Your task to perform on an android device: What's the weather? Image 0: 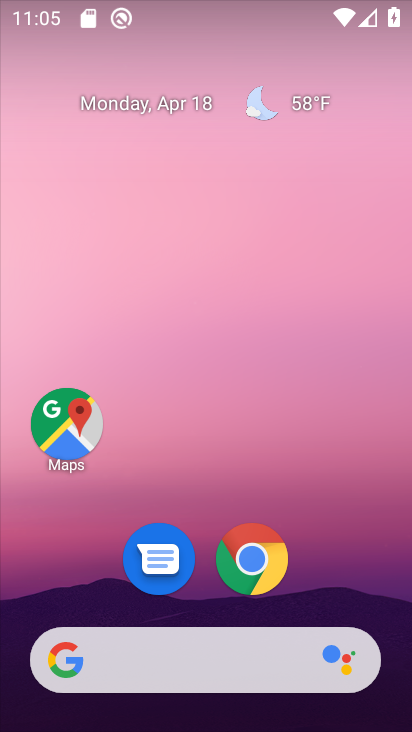
Step 0: click (259, 566)
Your task to perform on an android device: What's the weather? Image 1: 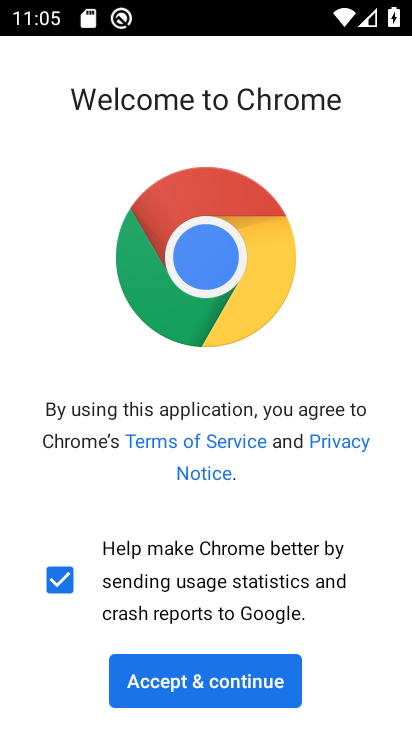
Step 1: click (161, 684)
Your task to perform on an android device: What's the weather? Image 2: 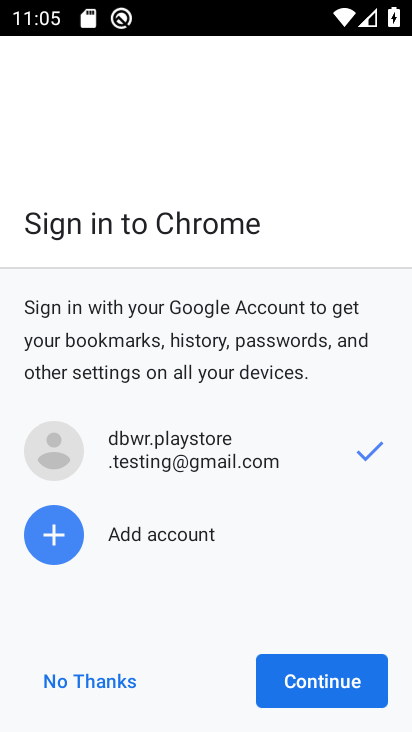
Step 2: click (337, 685)
Your task to perform on an android device: What's the weather? Image 3: 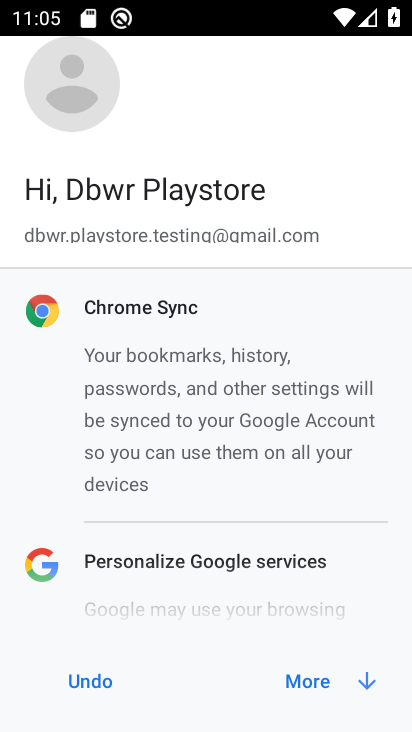
Step 3: click (337, 685)
Your task to perform on an android device: What's the weather? Image 4: 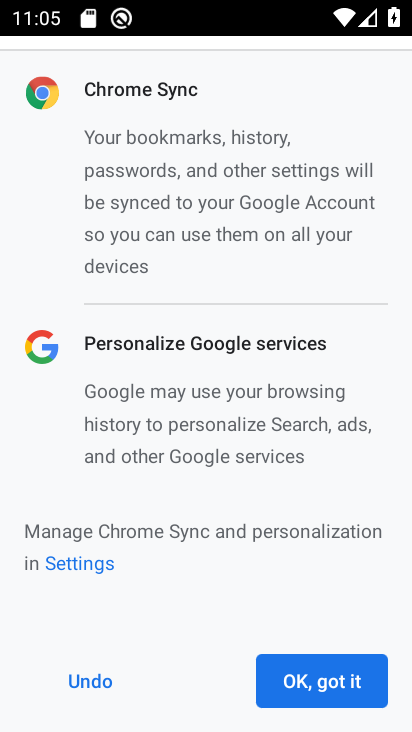
Step 4: click (337, 685)
Your task to perform on an android device: What's the weather? Image 5: 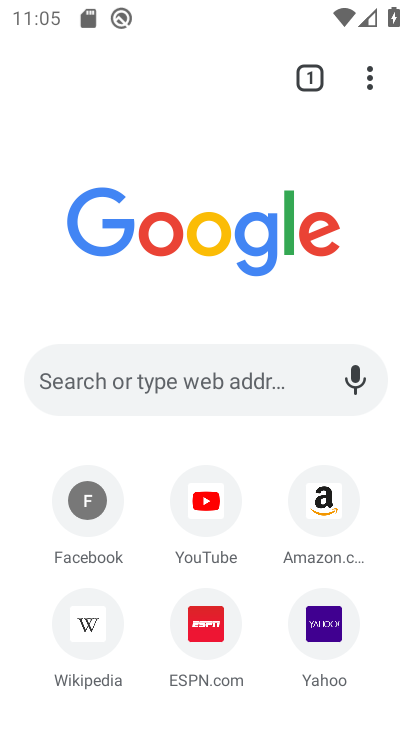
Step 5: click (143, 365)
Your task to perform on an android device: What's the weather? Image 6: 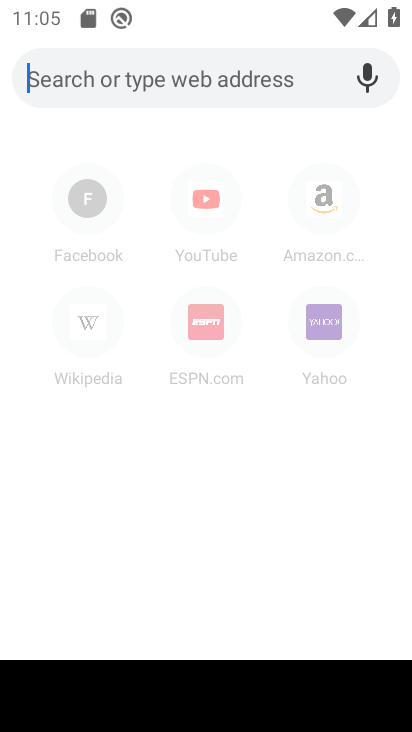
Step 6: type "weather"
Your task to perform on an android device: What's the weather? Image 7: 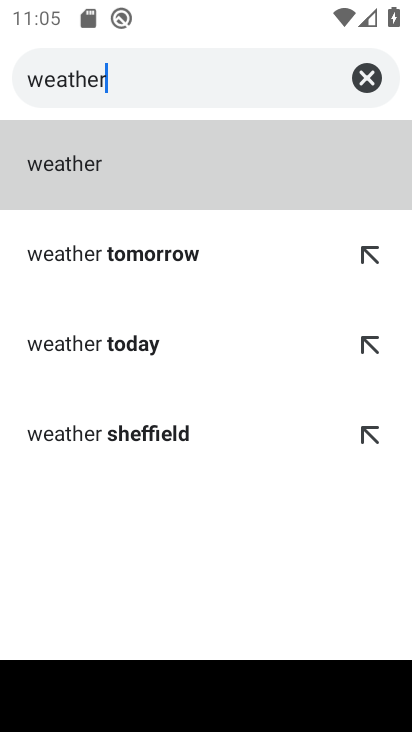
Step 7: click (93, 171)
Your task to perform on an android device: What's the weather? Image 8: 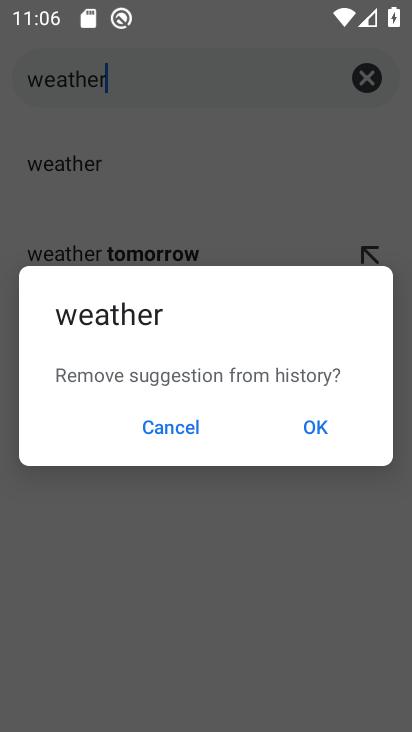
Step 8: click (102, 162)
Your task to perform on an android device: What's the weather? Image 9: 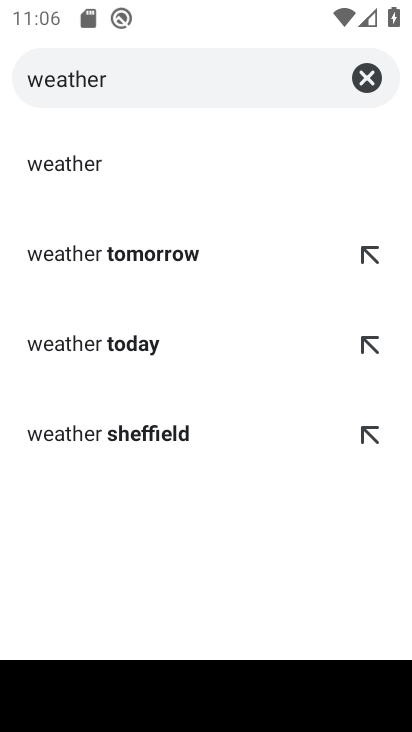
Step 9: click (70, 163)
Your task to perform on an android device: What's the weather? Image 10: 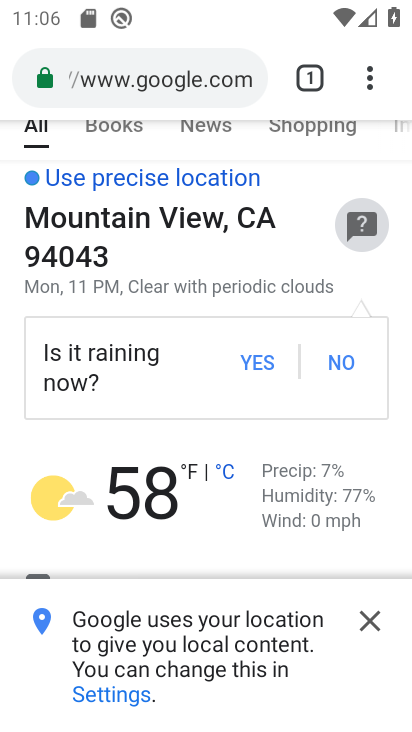
Step 10: task complete